Your task to perform on an android device: check android version Image 0: 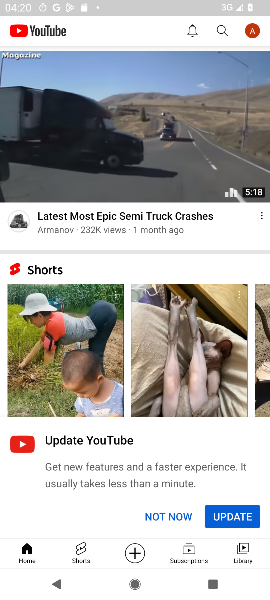
Step 0: press home button
Your task to perform on an android device: check android version Image 1: 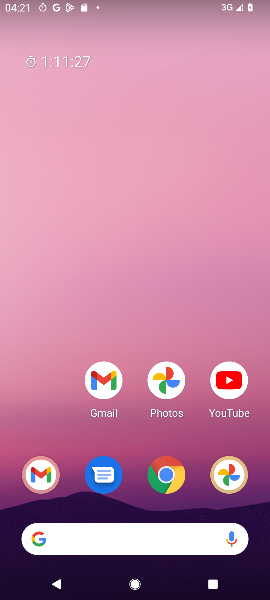
Step 1: drag from (60, 437) to (61, 210)
Your task to perform on an android device: check android version Image 2: 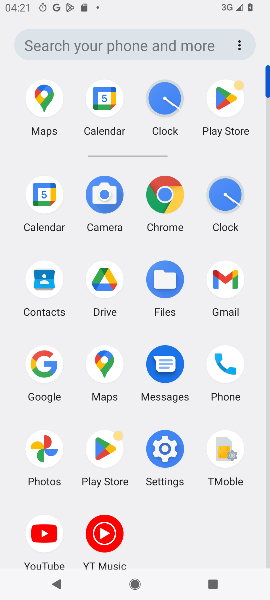
Step 2: click (165, 452)
Your task to perform on an android device: check android version Image 3: 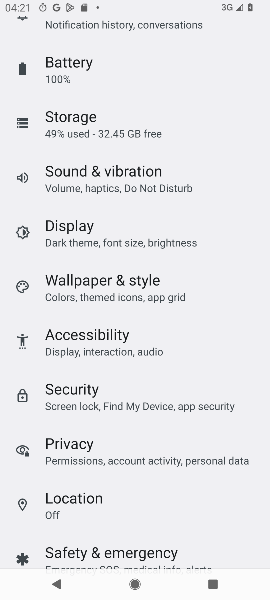
Step 3: drag from (214, 499) to (221, 418)
Your task to perform on an android device: check android version Image 4: 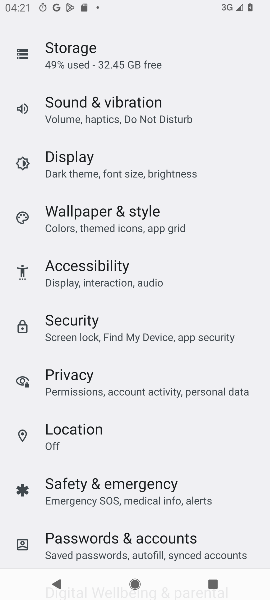
Step 4: drag from (226, 491) to (226, 417)
Your task to perform on an android device: check android version Image 5: 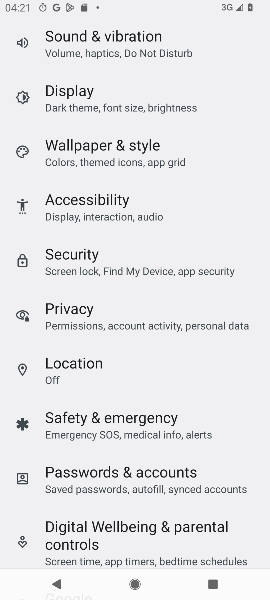
Step 5: drag from (235, 534) to (243, 389)
Your task to perform on an android device: check android version Image 6: 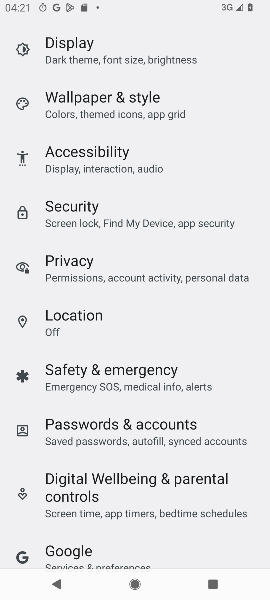
Step 6: drag from (230, 542) to (231, 443)
Your task to perform on an android device: check android version Image 7: 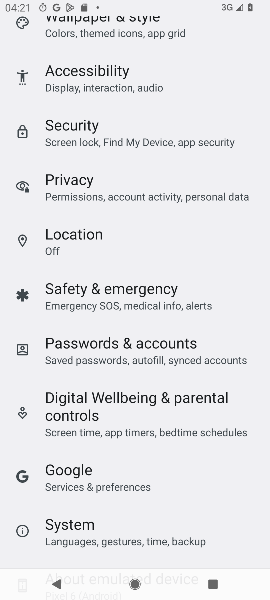
Step 7: drag from (213, 520) to (213, 389)
Your task to perform on an android device: check android version Image 8: 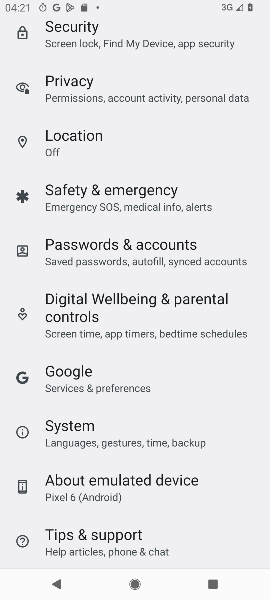
Step 8: click (188, 438)
Your task to perform on an android device: check android version Image 9: 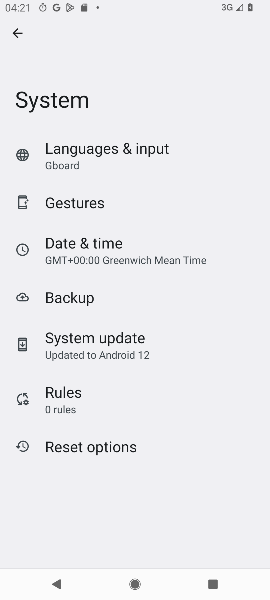
Step 9: task complete